Your task to perform on an android device: delete browsing data in the chrome app Image 0: 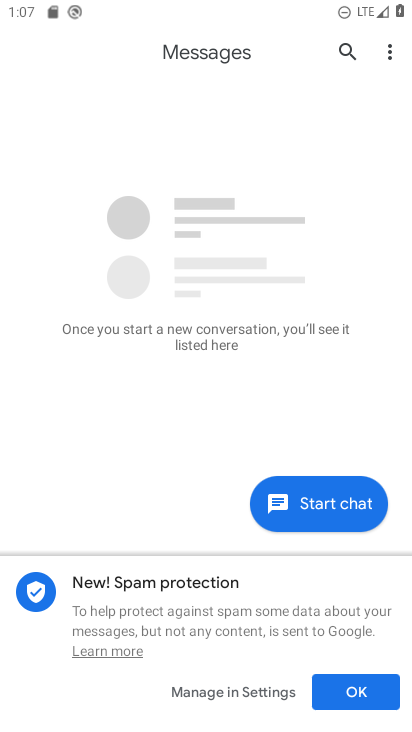
Step 0: press home button
Your task to perform on an android device: delete browsing data in the chrome app Image 1: 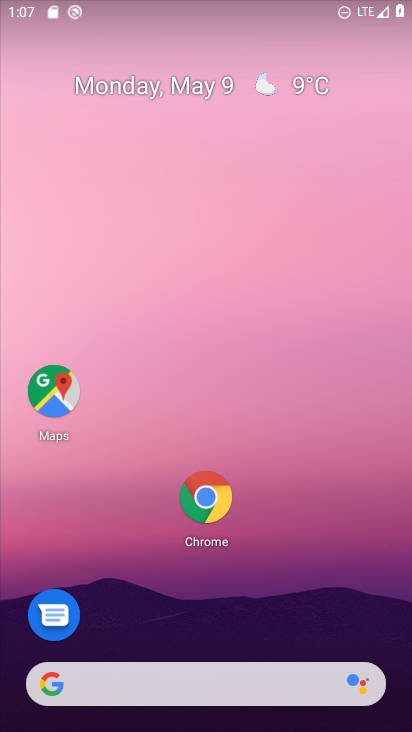
Step 1: drag from (292, 570) to (283, 243)
Your task to perform on an android device: delete browsing data in the chrome app Image 2: 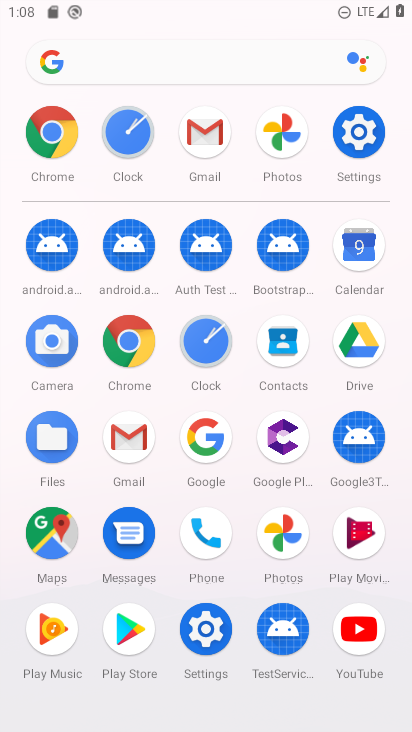
Step 2: click (126, 345)
Your task to perform on an android device: delete browsing data in the chrome app Image 3: 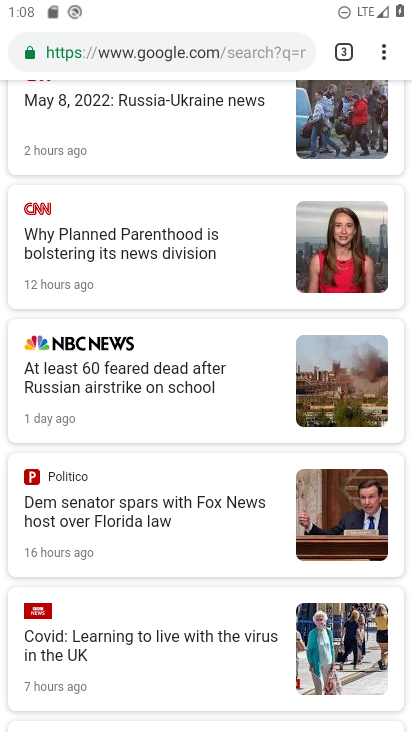
Step 3: drag from (389, 49) to (243, 290)
Your task to perform on an android device: delete browsing data in the chrome app Image 4: 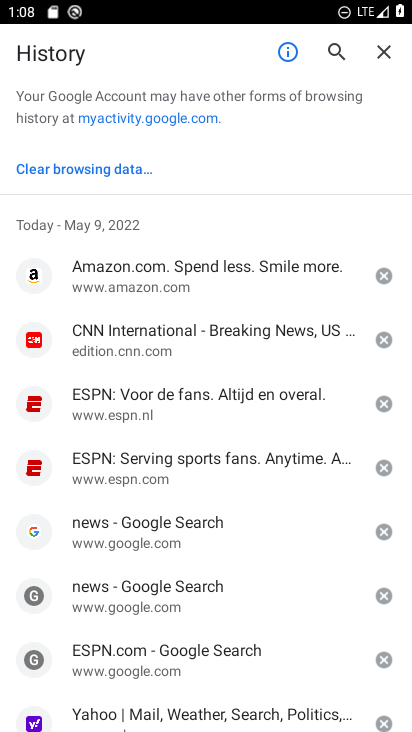
Step 4: click (119, 174)
Your task to perform on an android device: delete browsing data in the chrome app Image 5: 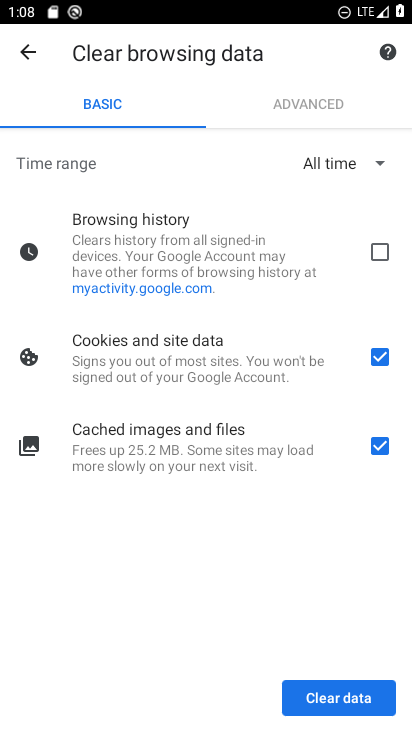
Step 5: click (385, 249)
Your task to perform on an android device: delete browsing data in the chrome app Image 6: 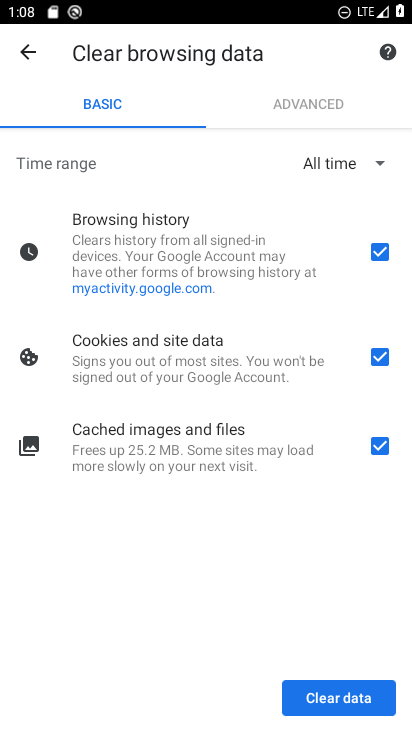
Step 6: click (351, 693)
Your task to perform on an android device: delete browsing data in the chrome app Image 7: 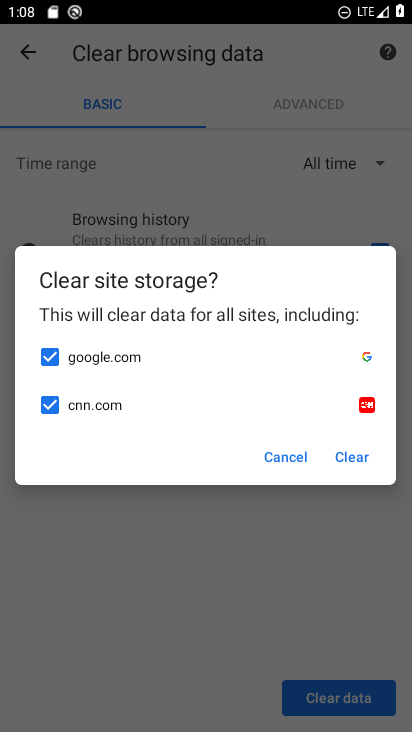
Step 7: click (366, 458)
Your task to perform on an android device: delete browsing data in the chrome app Image 8: 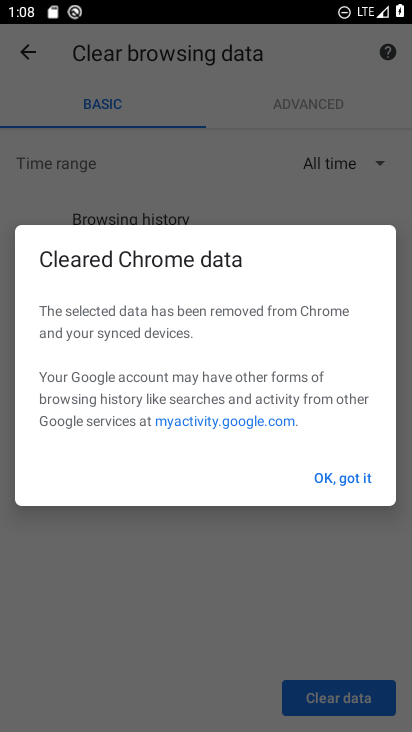
Step 8: task complete